Your task to perform on an android device: create a new album in the google photos Image 0: 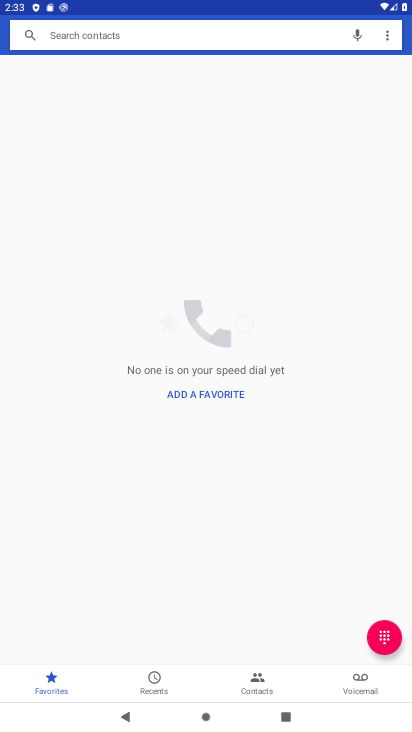
Step 0: press home button
Your task to perform on an android device: create a new album in the google photos Image 1: 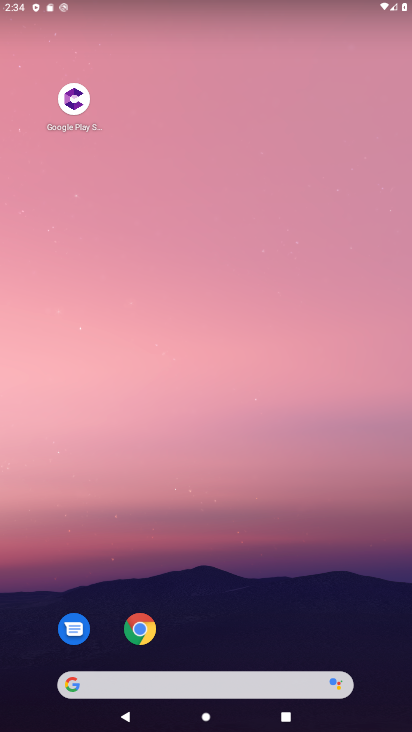
Step 1: drag from (385, 632) to (288, 66)
Your task to perform on an android device: create a new album in the google photos Image 2: 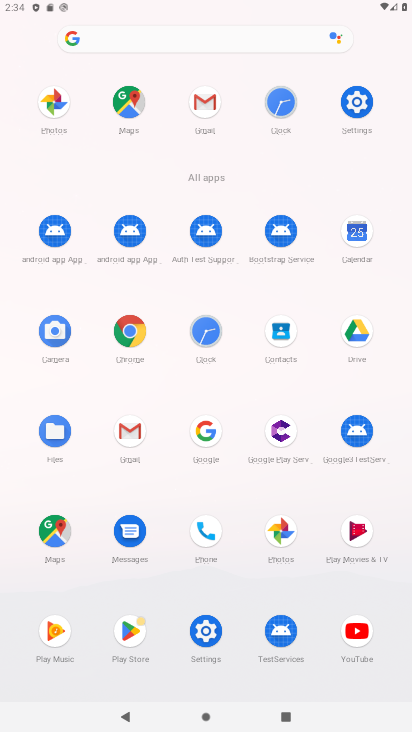
Step 2: click (281, 525)
Your task to perform on an android device: create a new album in the google photos Image 3: 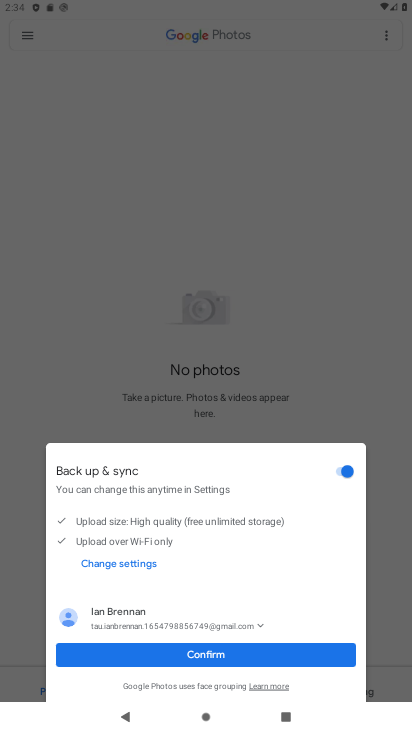
Step 3: click (232, 647)
Your task to perform on an android device: create a new album in the google photos Image 4: 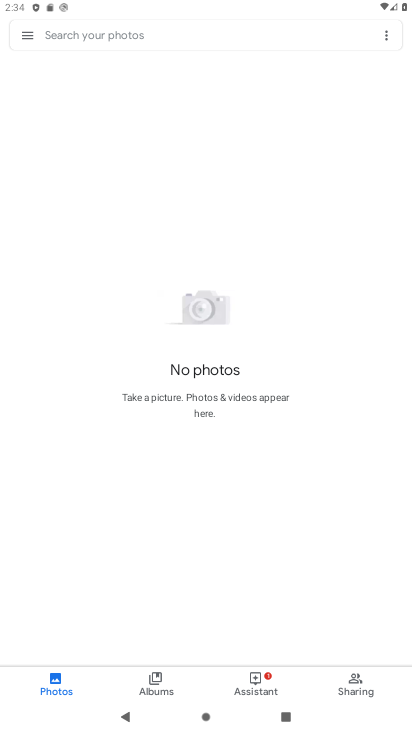
Step 4: click (31, 40)
Your task to perform on an android device: create a new album in the google photos Image 5: 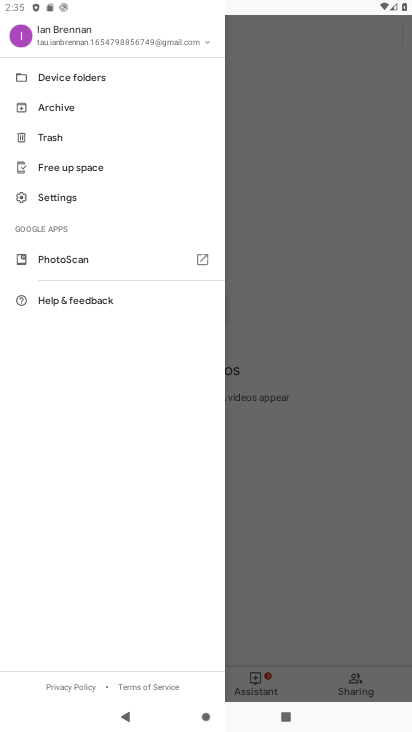
Step 5: task complete